Your task to perform on an android device: Open Yahoo.com Image 0: 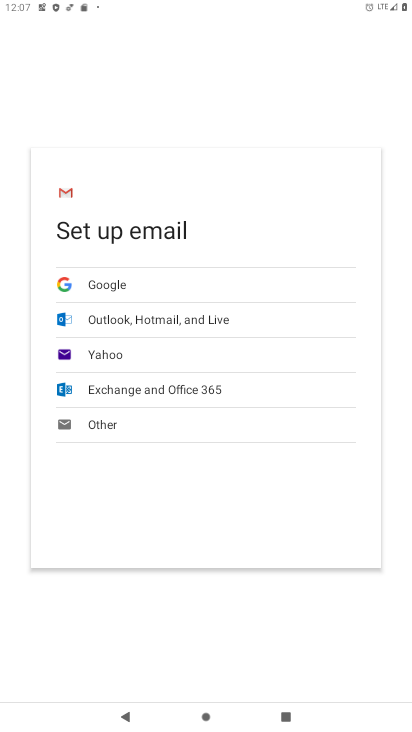
Step 0: press home button
Your task to perform on an android device: Open Yahoo.com Image 1: 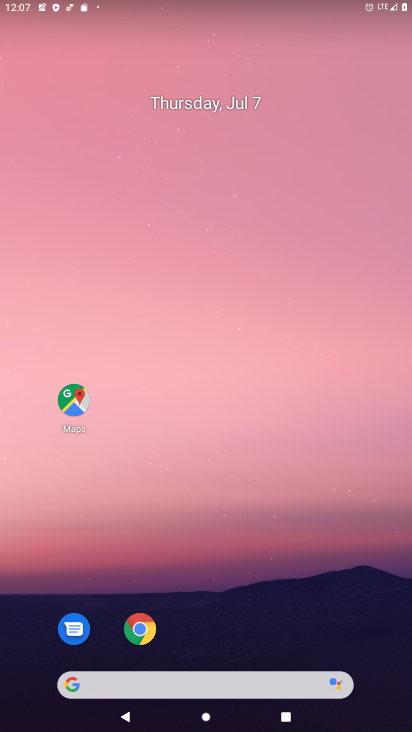
Step 1: click (141, 629)
Your task to perform on an android device: Open Yahoo.com Image 2: 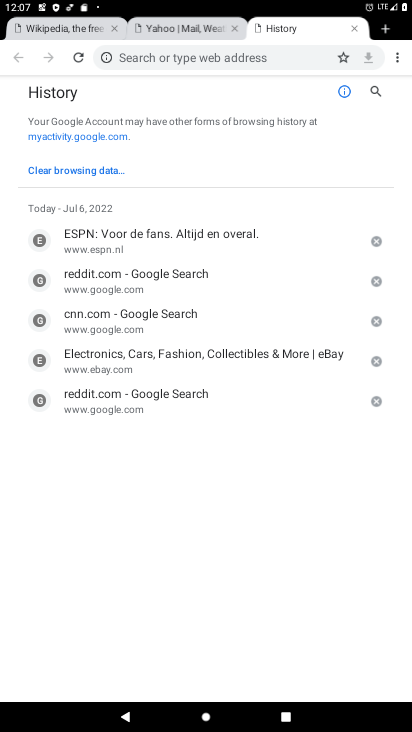
Step 2: click (276, 57)
Your task to perform on an android device: Open Yahoo.com Image 3: 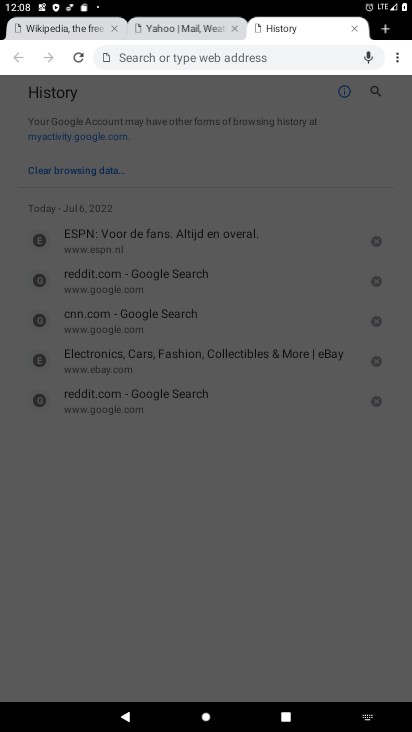
Step 3: type "Yahoo.com"
Your task to perform on an android device: Open Yahoo.com Image 4: 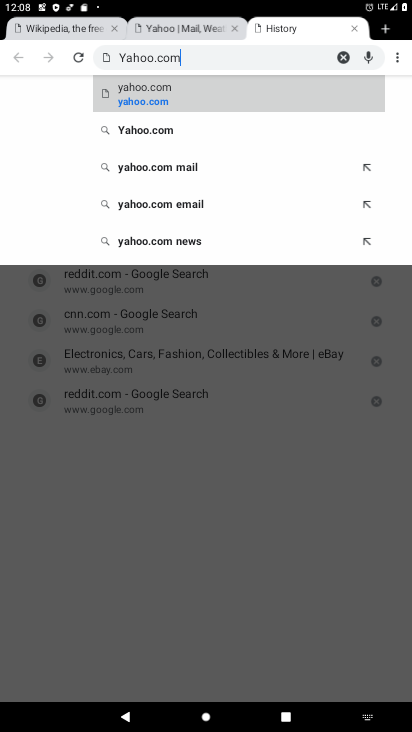
Step 4: click (172, 134)
Your task to perform on an android device: Open Yahoo.com Image 5: 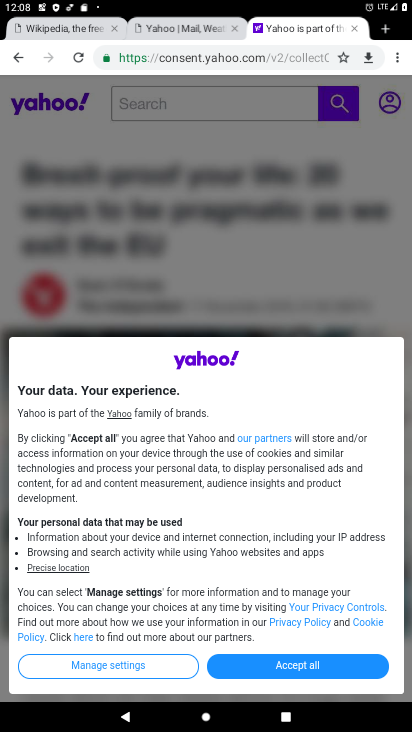
Step 5: click (321, 661)
Your task to perform on an android device: Open Yahoo.com Image 6: 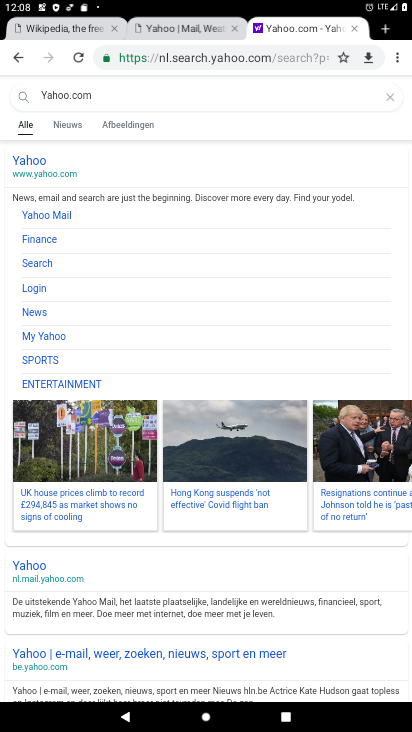
Step 6: click (36, 167)
Your task to perform on an android device: Open Yahoo.com Image 7: 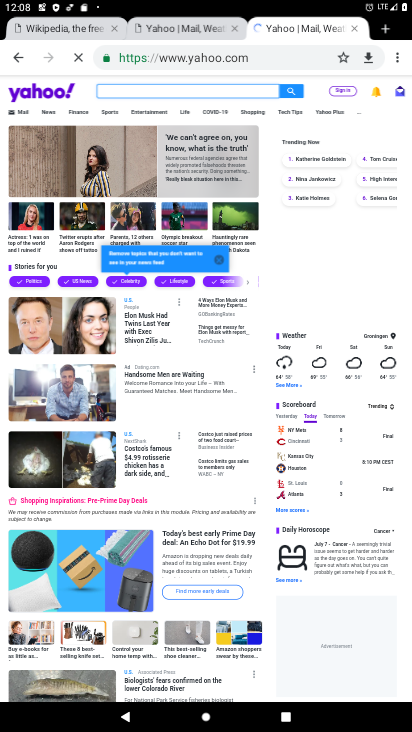
Step 7: task complete